Your task to perform on an android device: Open the calendar and show me this week's events? Image 0: 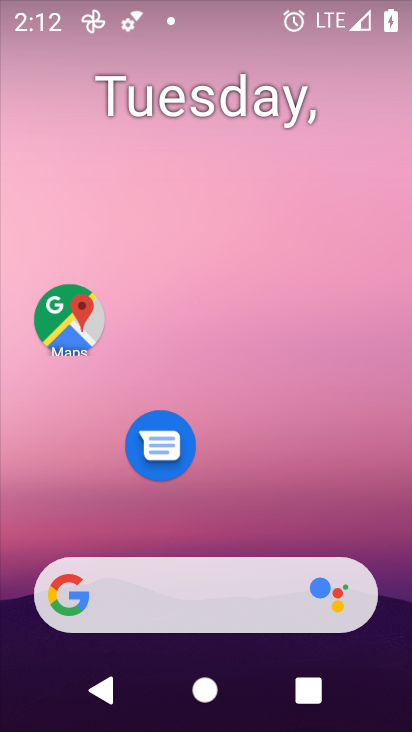
Step 0: drag from (292, 488) to (241, 43)
Your task to perform on an android device: Open the calendar and show me this week's events? Image 1: 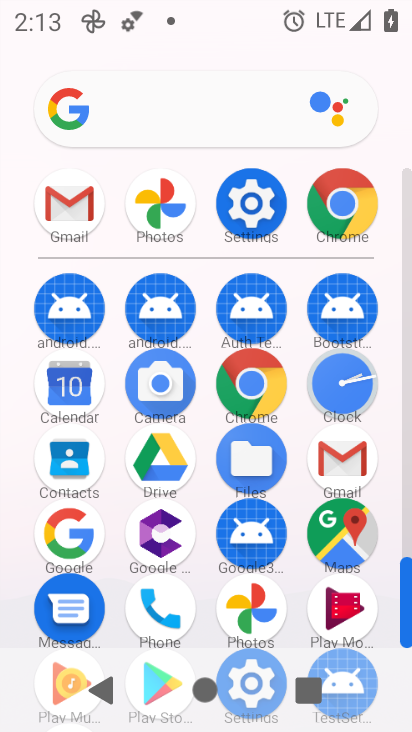
Step 1: click (65, 390)
Your task to perform on an android device: Open the calendar and show me this week's events? Image 2: 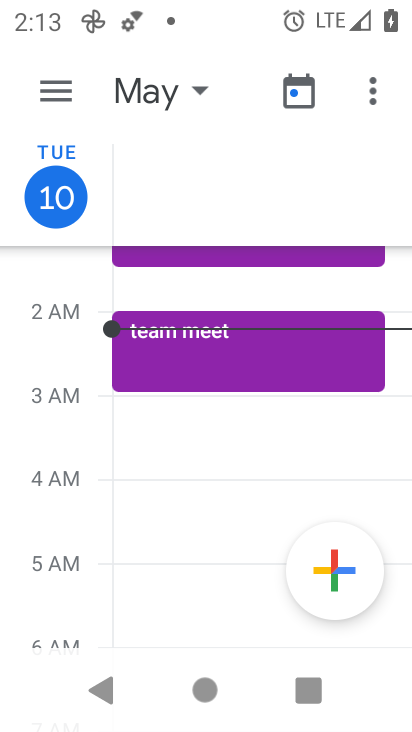
Step 2: click (65, 90)
Your task to perform on an android device: Open the calendar and show me this week's events? Image 3: 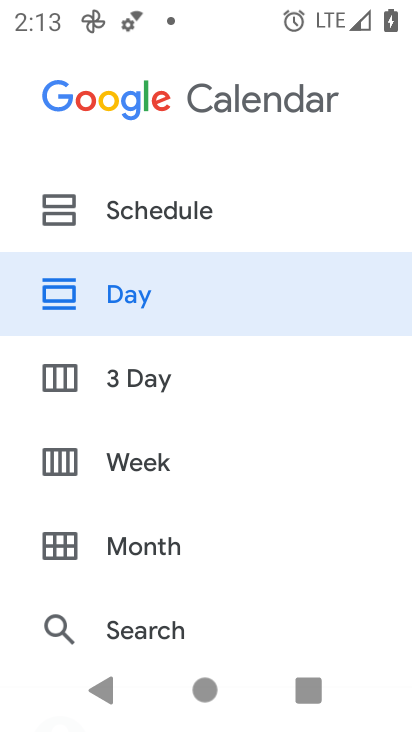
Step 3: click (129, 457)
Your task to perform on an android device: Open the calendar and show me this week's events? Image 4: 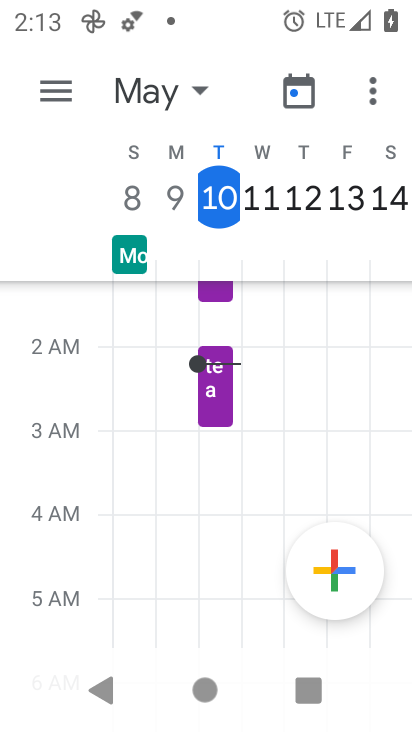
Step 4: task complete